Your task to perform on an android device: open chrome and create a bookmark for the current page Image 0: 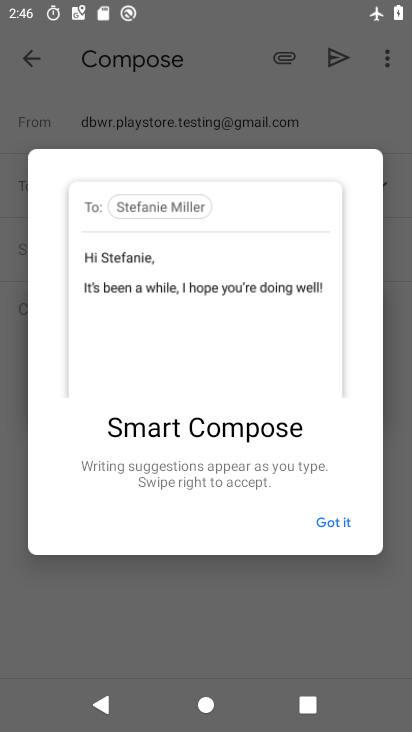
Step 0: press home button
Your task to perform on an android device: open chrome and create a bookmark for the current page Image 1: 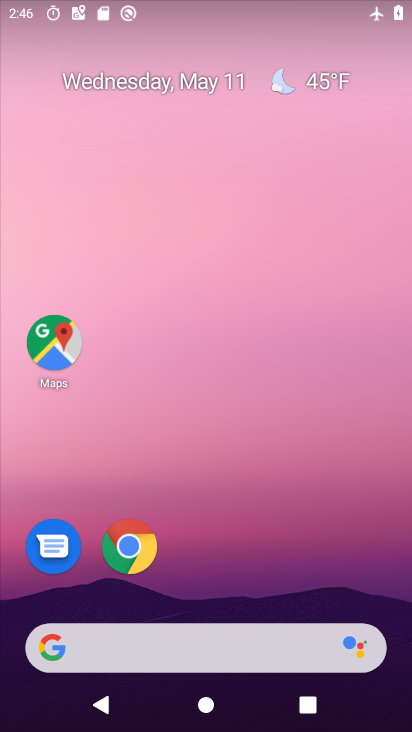
Step 1: click (124, 542)
Your task to perform on an android device: open chrome and create a bookmark for the current page Image 2: 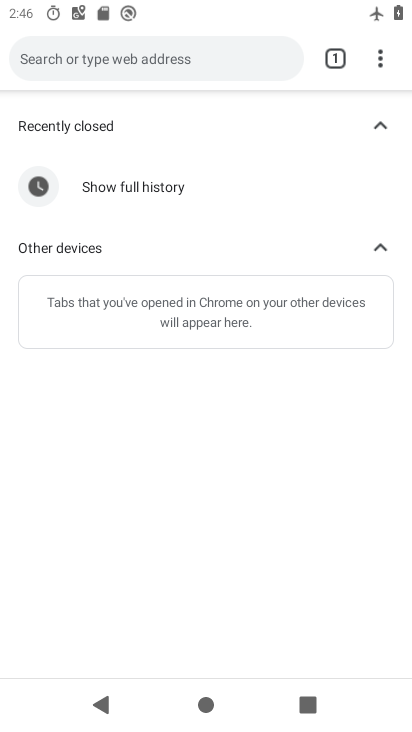
Step 2: click (373, 51)
Your task to perform on an android device: open chrome and create a bookmark for the current page Image 3: 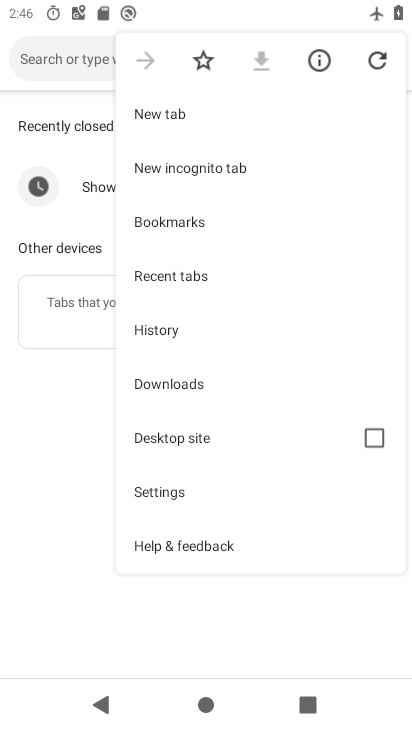
Step 3: click (193, 60)
Your task to perform on an android device: open chrome and create a bookmark for the current page Image 4: 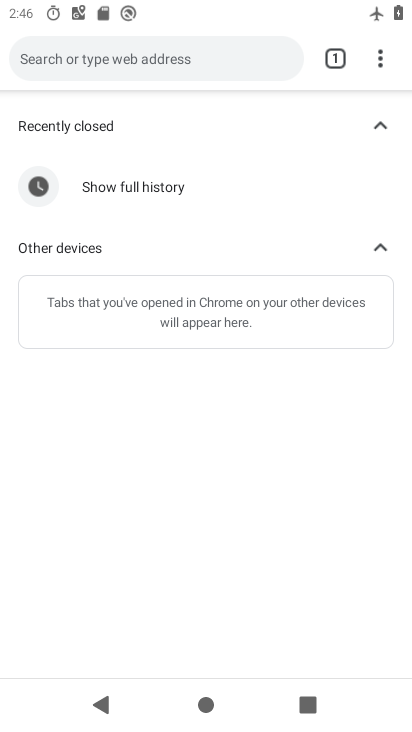
Step 4: task complete